Your task to perform on an android device: check google app version Image 0: 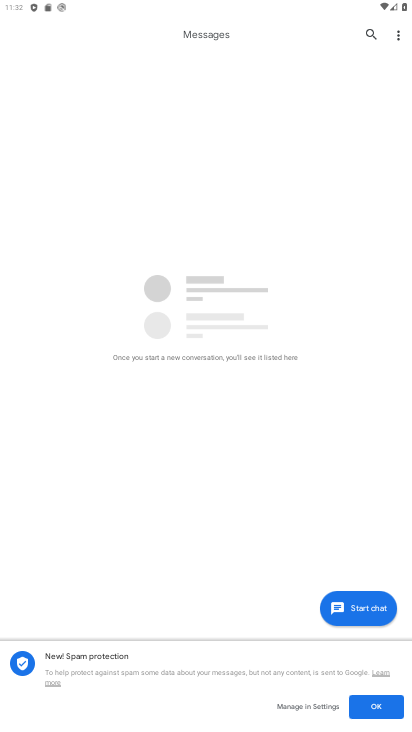
Step 0: press back button
Your task to perform on an android device: check google app version Image 1: 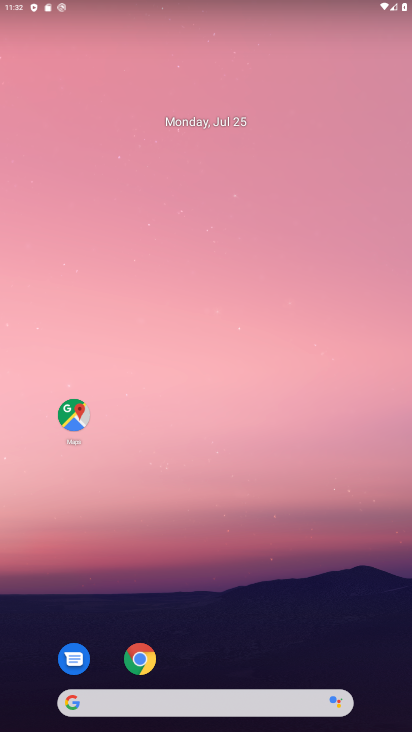
Step 1: click (146, 692)
Your task to perform on an android device: check google app version Image 2: 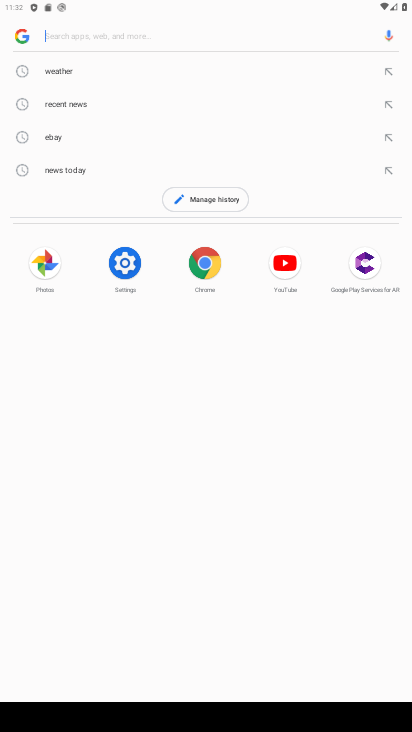
Step 2: click (17, 32)
Your task to perform on an android device: check google app version Image 3: 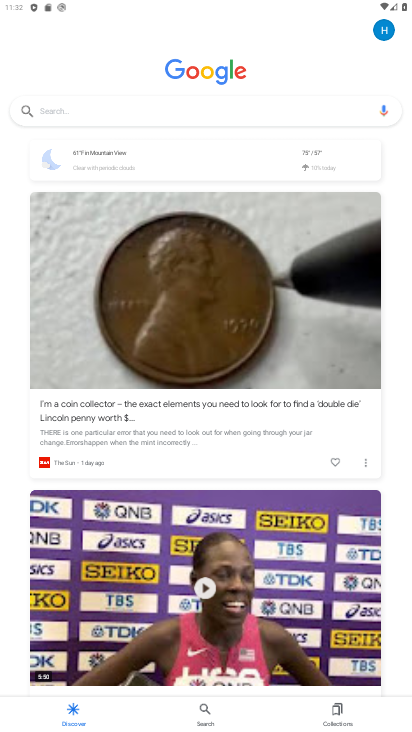
Step 3: click (382, 30)
Your task to perform on an android device: check google app version Image 4: 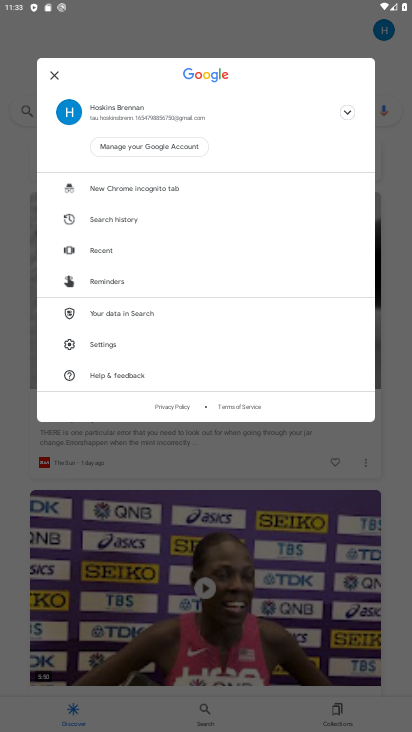
Step 4: click (110, 342)
Your task to perform on an android device: check google app version Image 5: 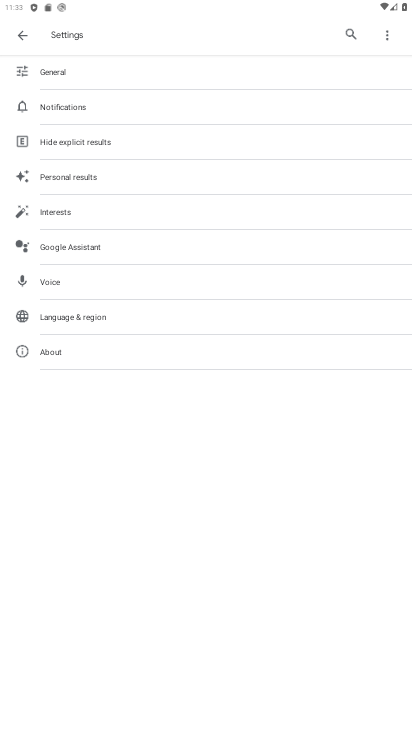
Step 5: click (101, 361)
Your task to perform on an android device: check google app version Image 6: 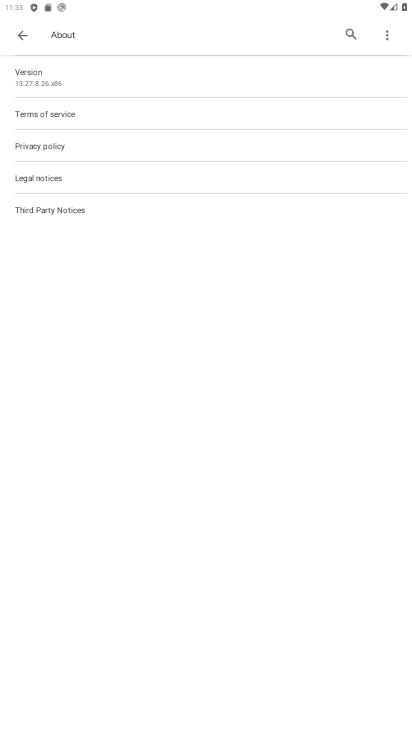
Step 6: task complete